Your task to perform on an android device: move a message to another label in the gmail app Image 0: 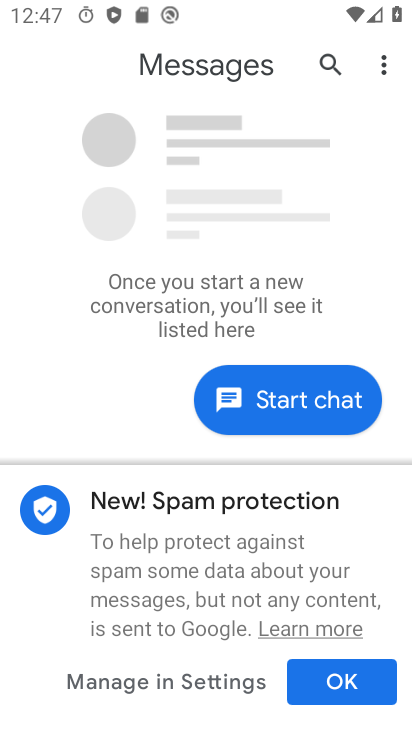
Step 0: press home button
Your task to perform on an android device: move a message to another label in the gmail app Image 1: 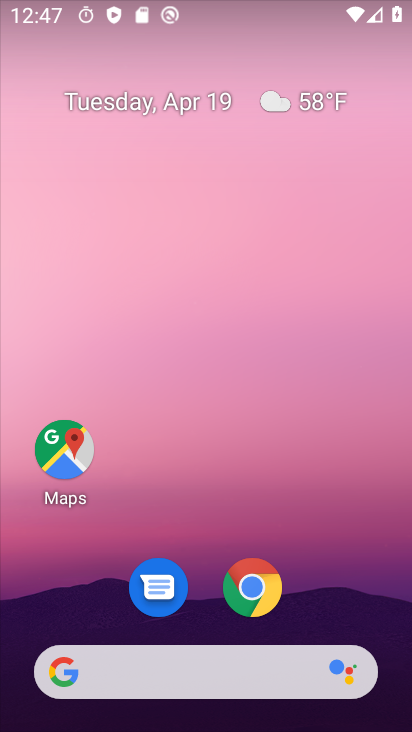
Step 1: drag from (350, 621) to (337, 224)
Your task to perform on an android device: move a message to another label in the gmail app Image 2: 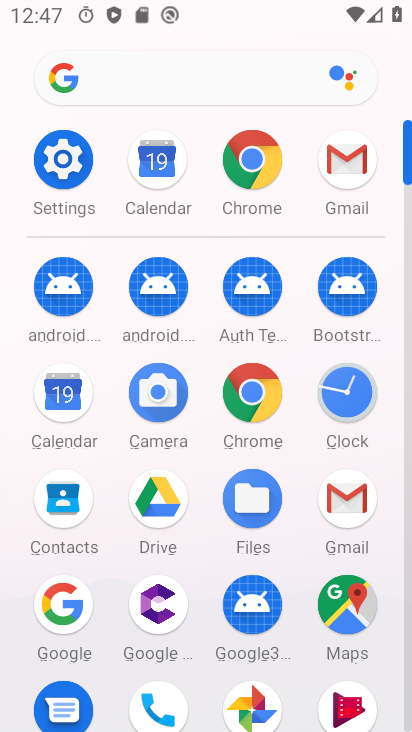
Step 2: click (339, 497)
Your task to perform on an android device: move a message to another label in the gmail app Image 3: 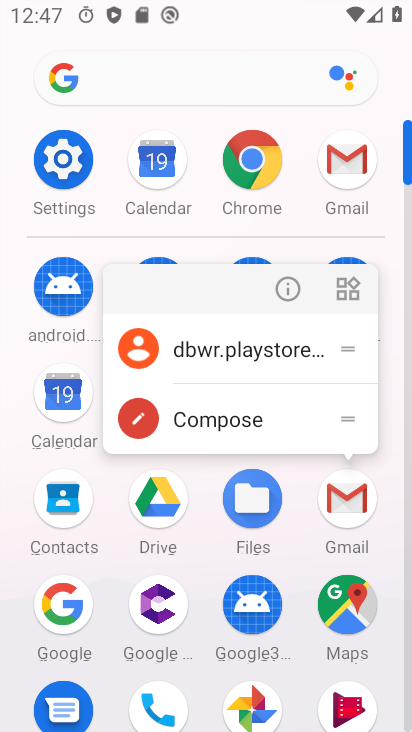
Step 3: click (340, 498)
Your task to perform on an android device: move a message to another label in the gmail app Image 4: 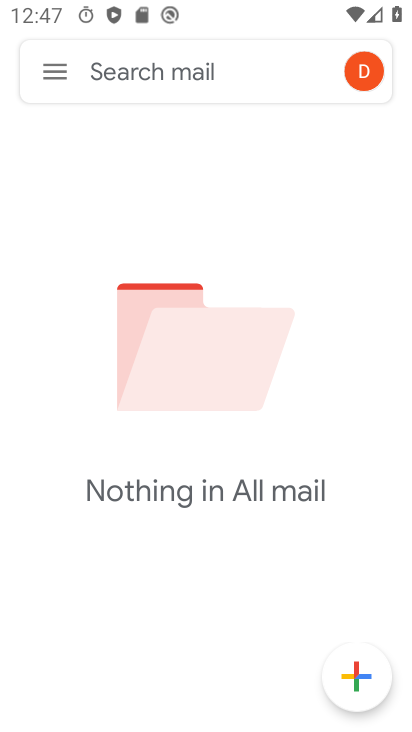
Step 4: click (55, 72)
Your task to perform on an android device: move a message to another label in the gmail app Image 5: 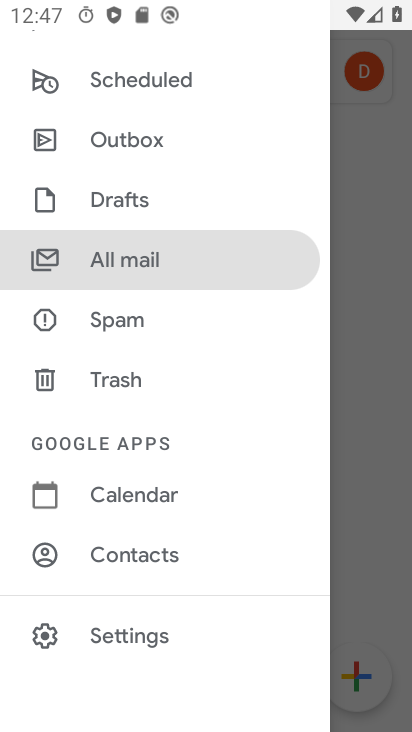
Step 5: task complete